Your task to perform on an android device: check storage Image 0: 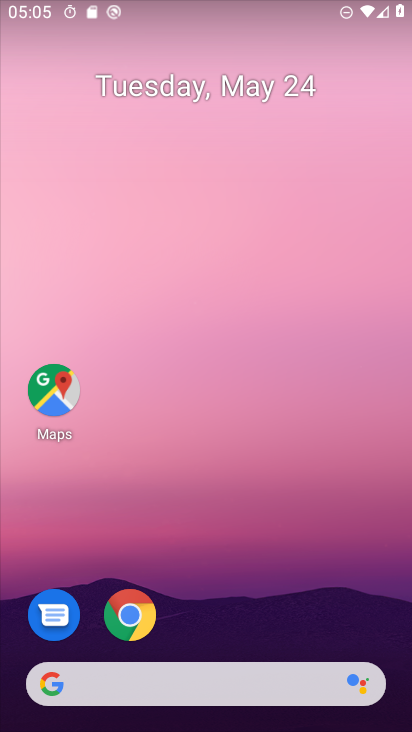
Step 0: drag from (200, 618) to (293, 139)
Your task to perform on an android device: check storage Image 1: 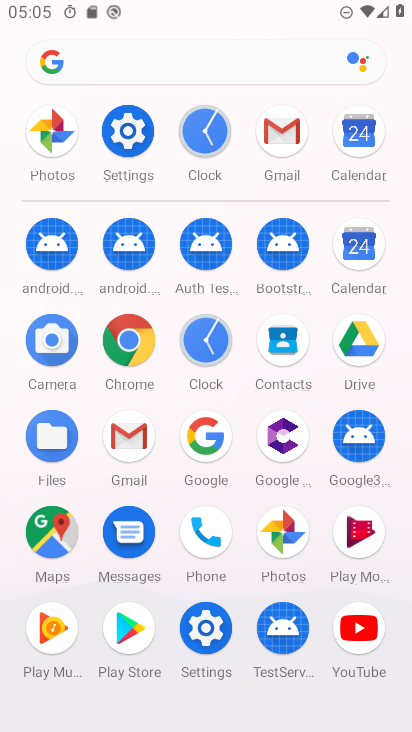
Step 1: click (133, 130)
Your task to perform on an android device: check storage Image 2: 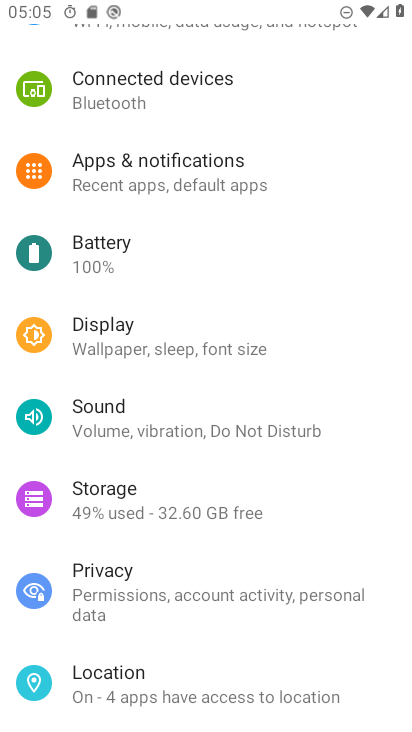
Step 2: click (101, 509)
Your task to perform on an android device: check storage Image 3: 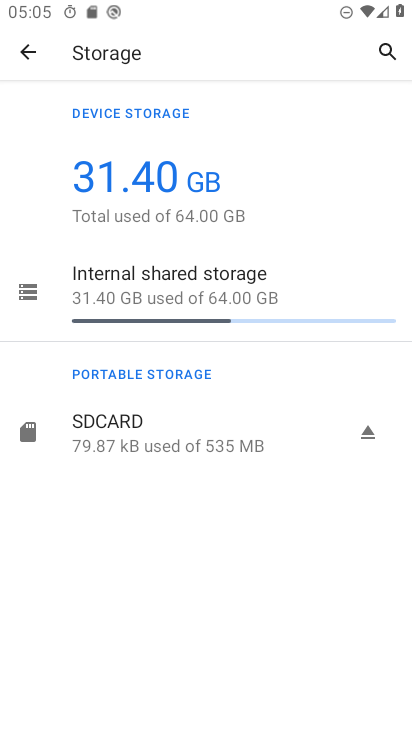
Step 3: task complete